Your task to perform on an android device: Open display settings Image 0: 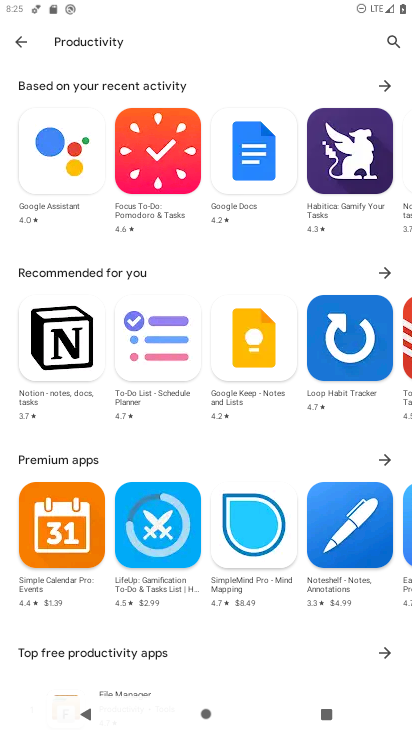
Step 0: press home button
Your task to perform on an android device: Open display settings Image 1: 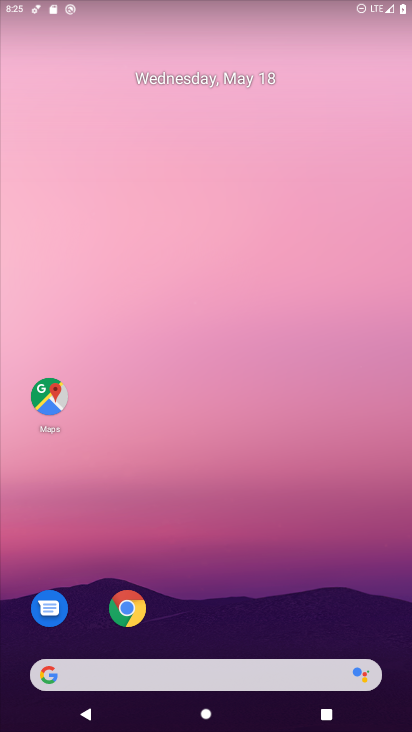
Step 1: drag from (336, 632) to (305, 31)
Your task to perform on an android device: Open display settings Image 2: 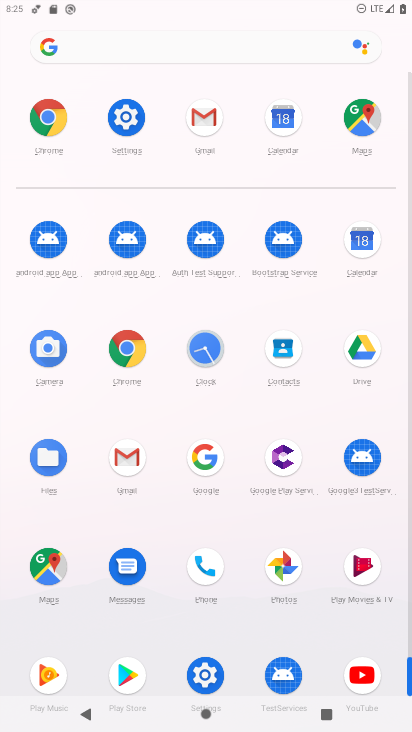
Step 2: click (135, 122)
Your task to perform on an android device: Open display settings Image 3: 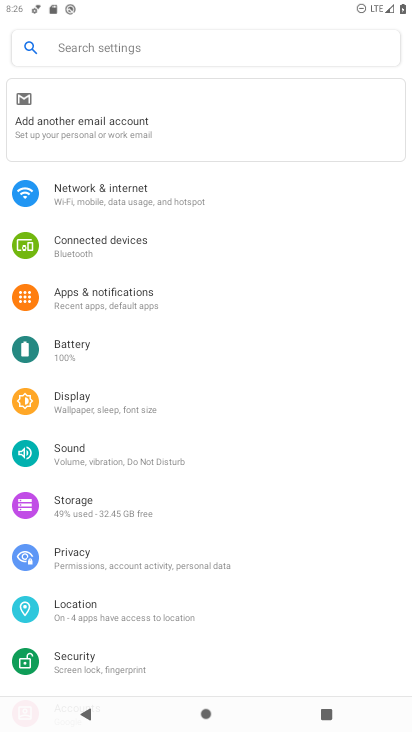
Step 3: click (141, 407)
Your task to perform on an android device: Open display settings Image 4: 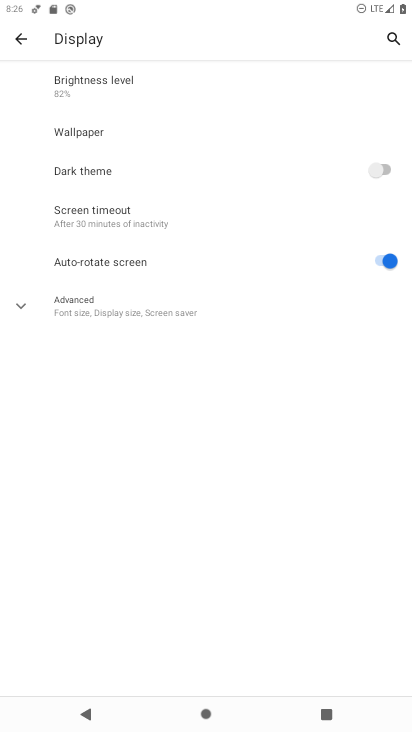
Step 4: task complete